Your task to perform on an android device: delete browsing data in the chrome app Image 0: 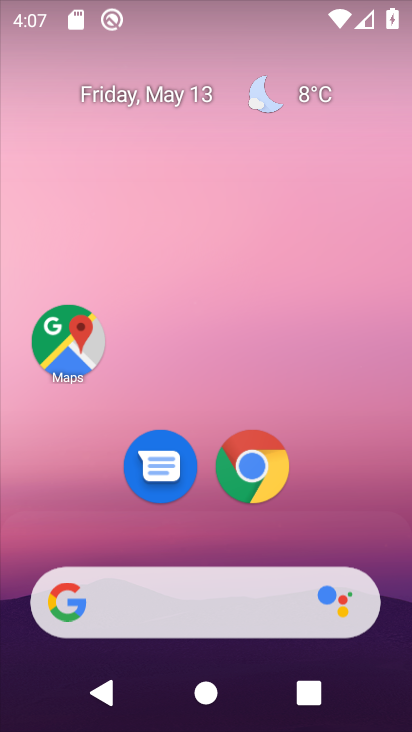
Step 0: click (252, 461)
Your task to perform on an android device: delete browsing data in the chrome app Image 1: 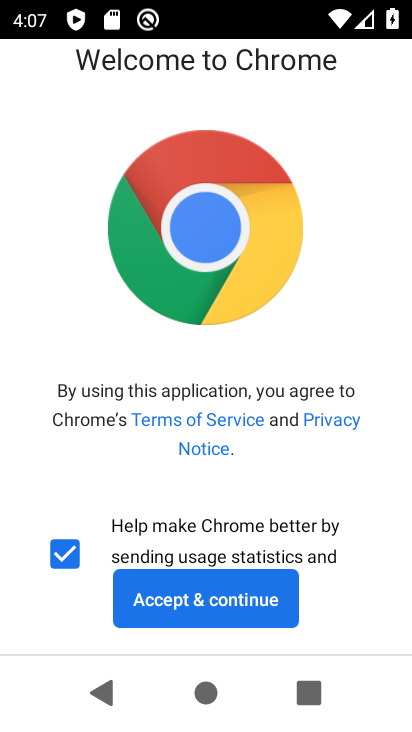
Step 1: click (200, 597)
Your task to perform on an android device: delete browsing data in the chrome app Image 2: 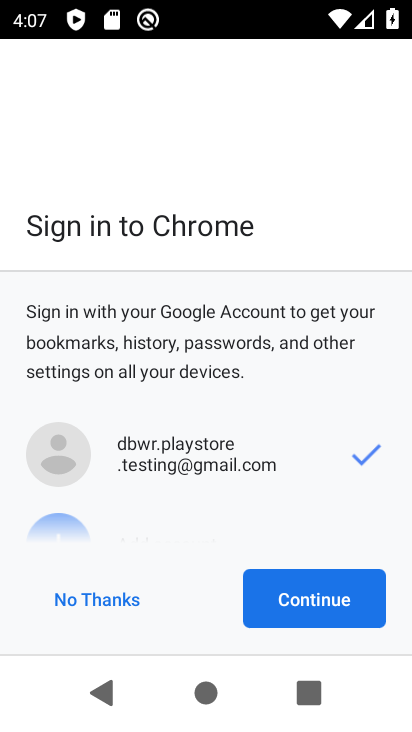
Step 2: click (306, 590)
Your task to perform on an android device: delete browsing data in the chrome app Image 3: 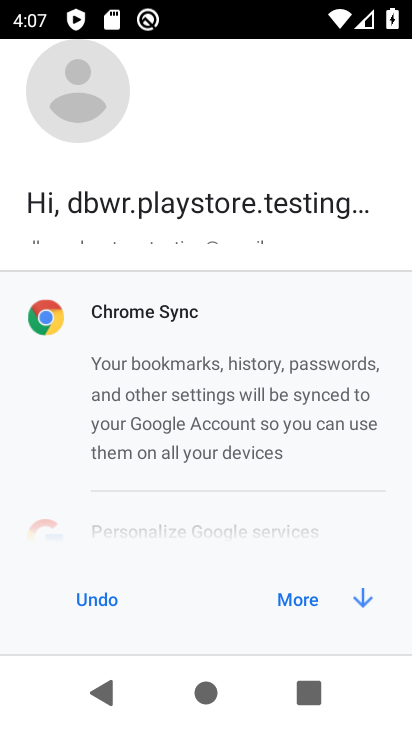
Step 3: click (304, 592)
Your task to perform on an android device: delete browsing data in the chrome app Image 4: 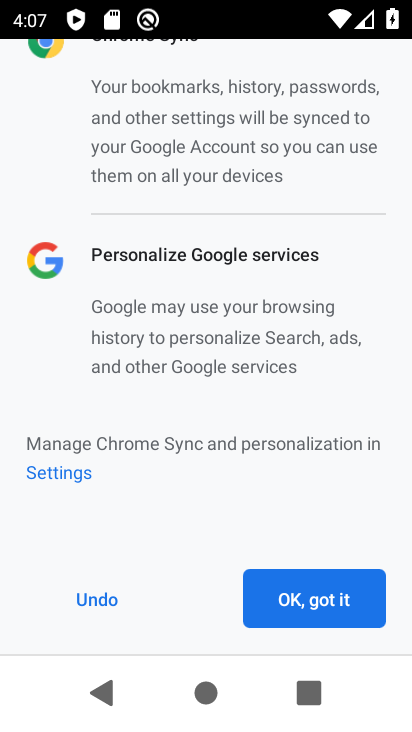
Step 4: click (304, 592)
Your task to perform on an android device: delete browsing data in the chrome app Image 5: 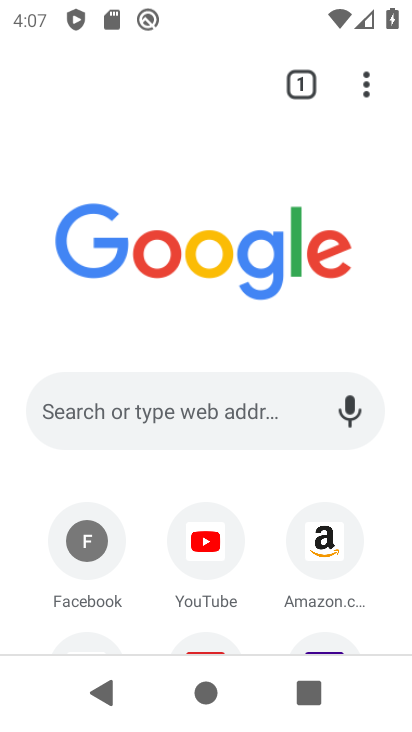
Step 5: click (367, 98)
Your task to perform on an android device: delete browsing data in the chrome app Image 6: 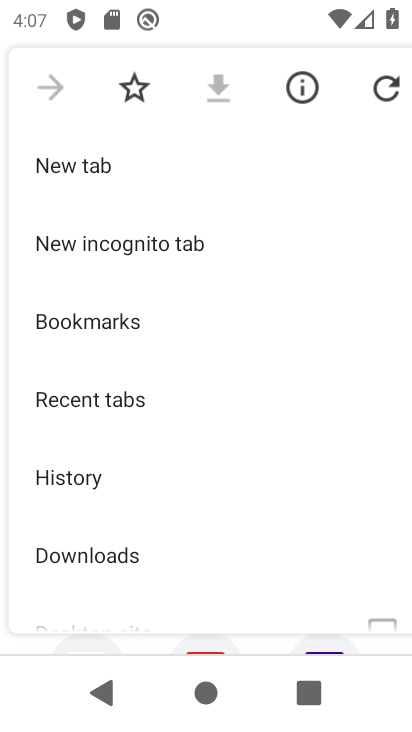
Step 6: click (77, 471)
Your task to perform on an android device: delete browsing data in the chrome app Image 7: 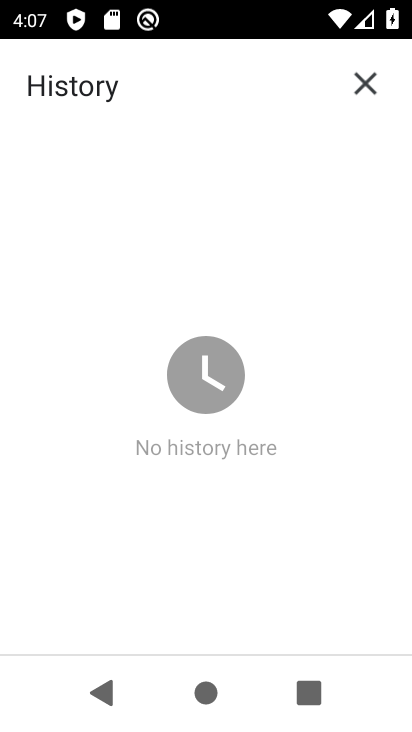
Step 7: task complete